Your task to perform on an android device: refresh tabs in the chrome app Image 0: 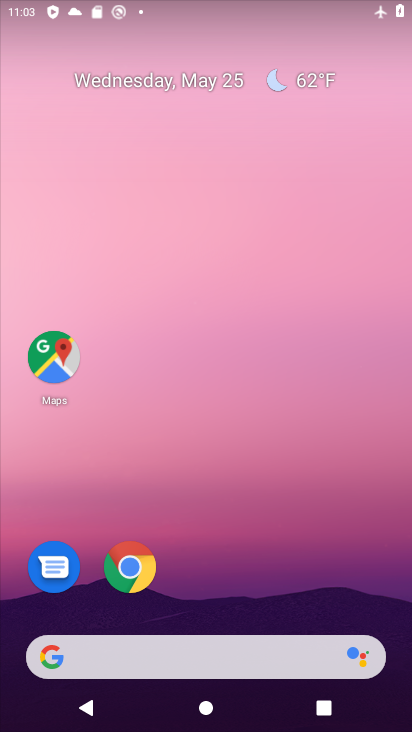
Step 0: drag from (336, 601) to (266, 1)
Your task to perform on an android device: refresh tabs in the chrome app Image 1: 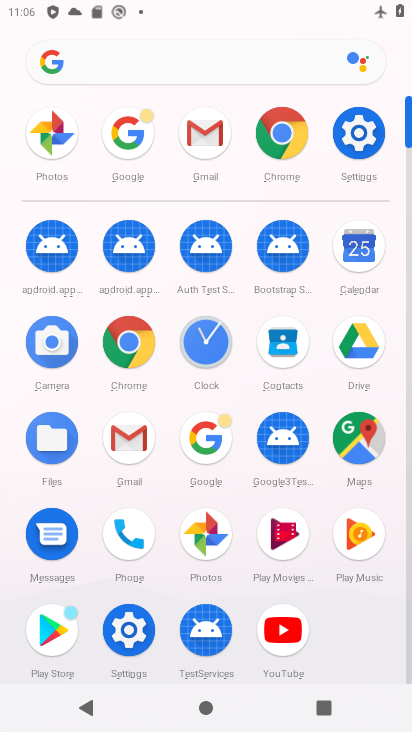
Step 1: click (300, 147)
Your task to perform on an android device: refresh tabs in the chrome app Image 2: 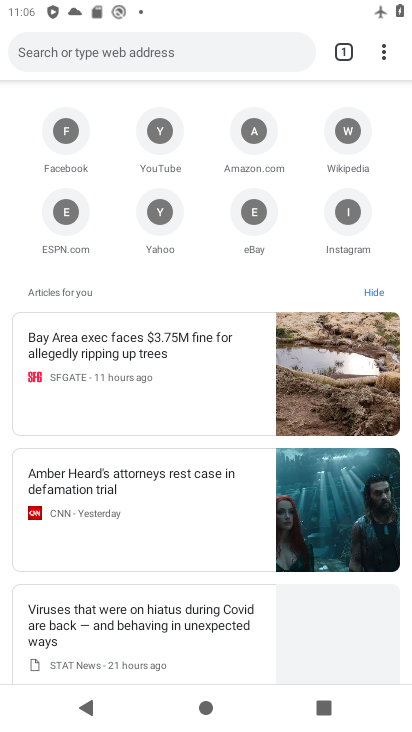
Step 2: click (384, 44)
Your task to perform on an android device: refresh tabs in the chrome app Image 3: 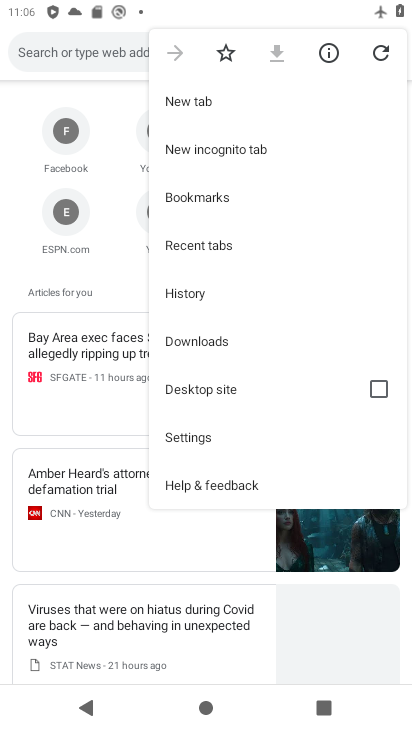
Step 3: click (383, 48)
Your task to perform on an android device: refresh tabs in the chrome app Image 4: 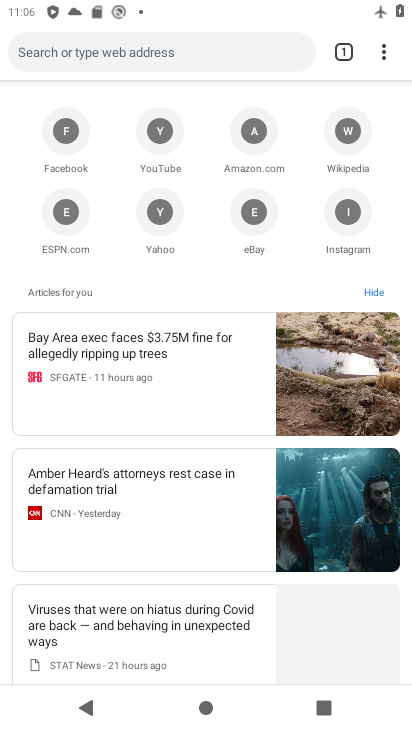
Step 4: task complete